Your task to perform on an android device: turn notification dots off Image 0: 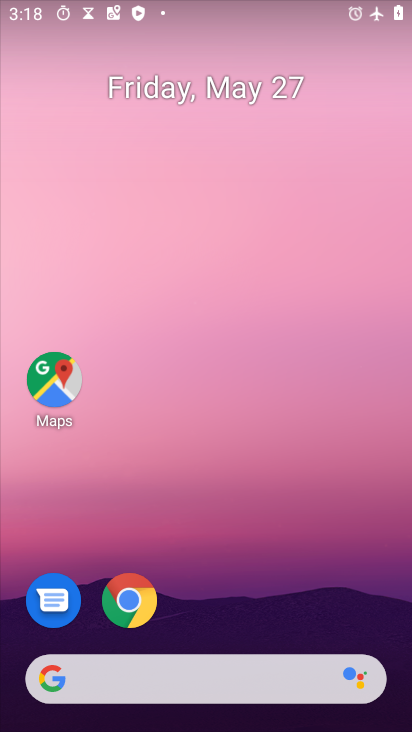
Step 0: drag from (278, 530) to (235, 27)
Your task to perform on an android device: turn notification dots off Image 1: 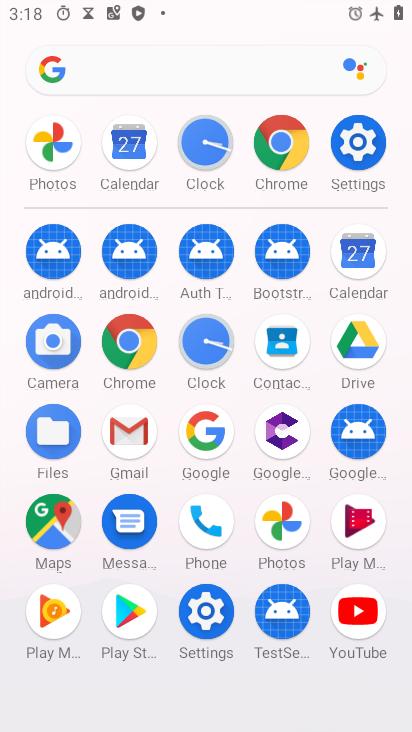
Step 1: drag from (15, 599) to (33, 216)
Your task to perform on an android device: turn notification dots off Image 2: 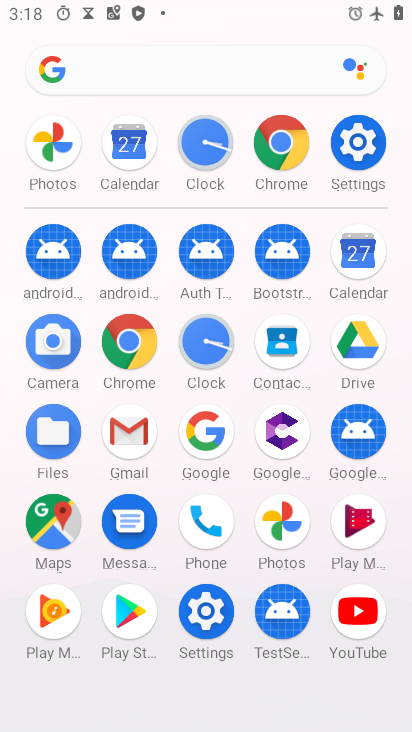
Step 2: click (204, 606)
Your task to perform on an android device: turn notification dots off Image 3: 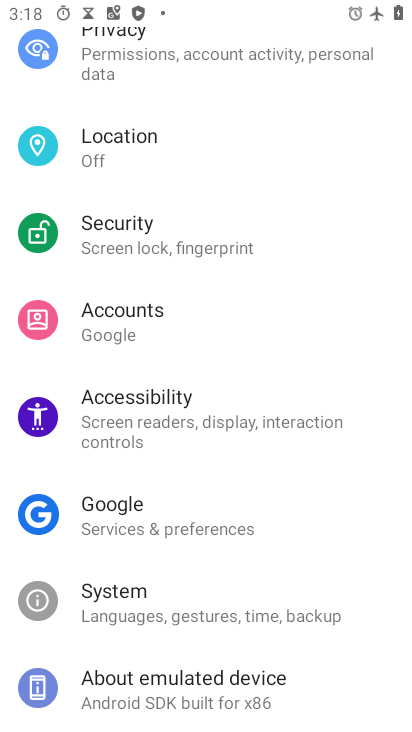
Step 3: drag from (251, 128) to (253, 622)
Your task to perform on an android device: turn notification dots off Image 4: 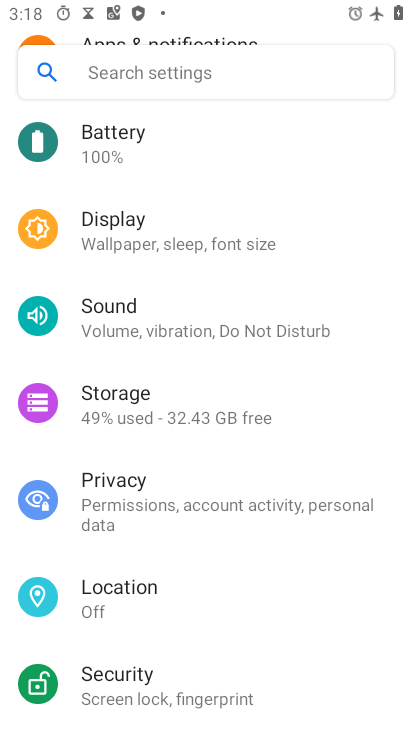
Step 4: drag from (263, 180) to (270, 633)
Your task to perform on an android device: turn notification dots off Image 5: 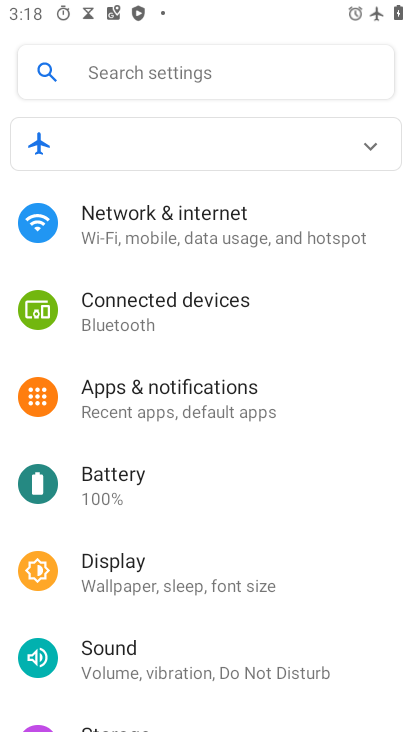
Step 5: click (188, 382)
Your task to perform on an android device: turn notification dots off Image 6: 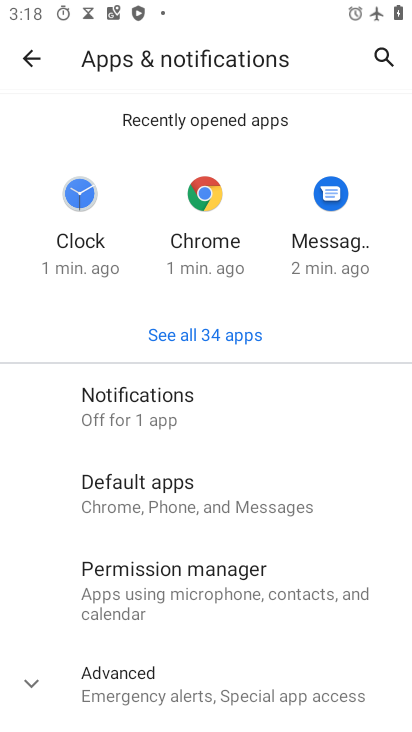
Step 6: click (207, 400)
Your task to perform on an android device: turn notification dots off Image 7: 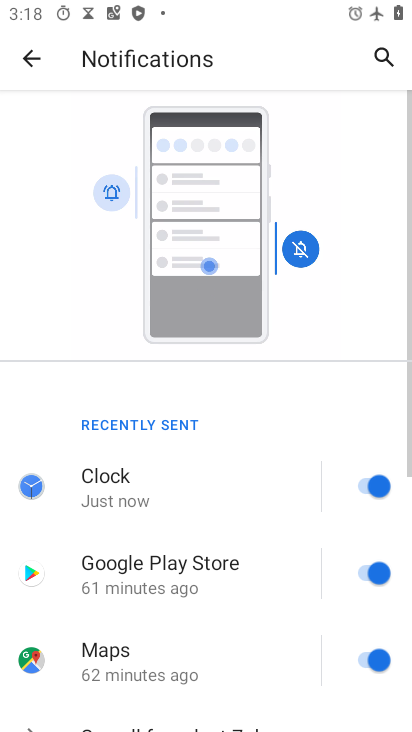
Step 7: drag from (200, 611) to (263, 83)
Your task to perform on an android device: turn notification dots off Image 8: 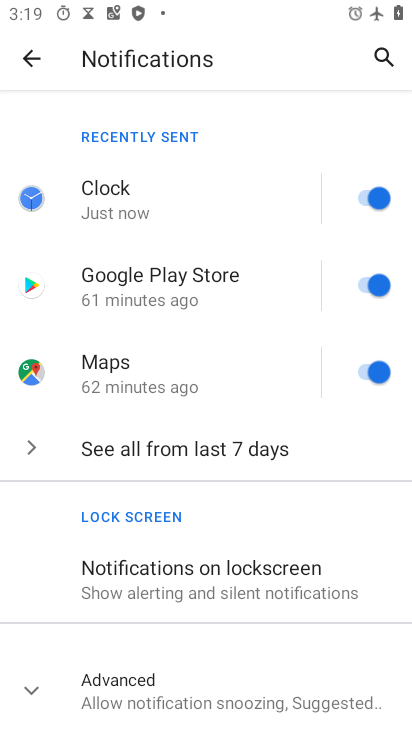
Step 8: click (158, 678)
Your task to perform on an android device: turn notification dots off Image 9: 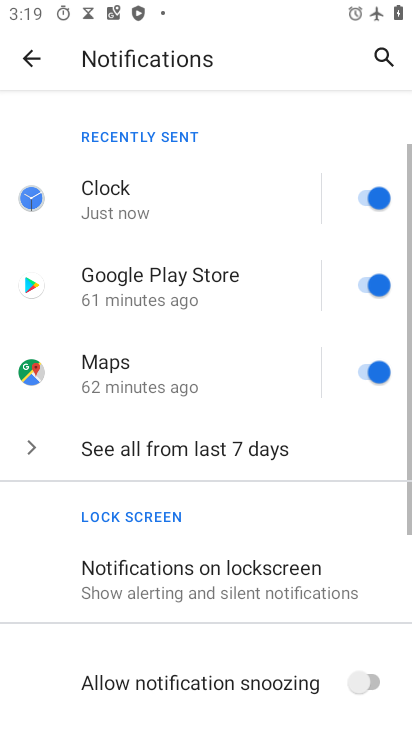
Step 9: task complete